Your task to perform on an android device: turn off airplane mode Image 0: 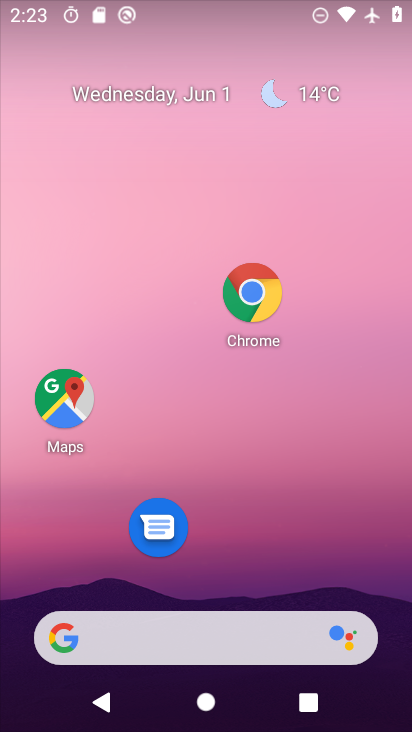
Step 0: drag from (255, 535) to (255, 177)
Your task to perform on an android device: turn off airplane mode Image 1: 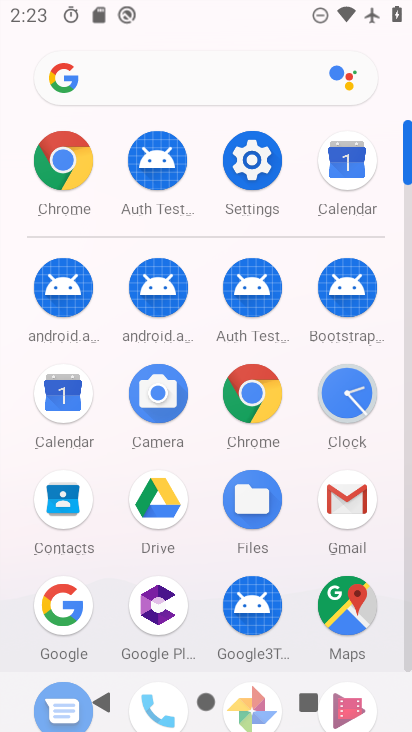
Step 1: click (250, 168)
Your task to perform on an android device: turn off airplane mode Image 2: 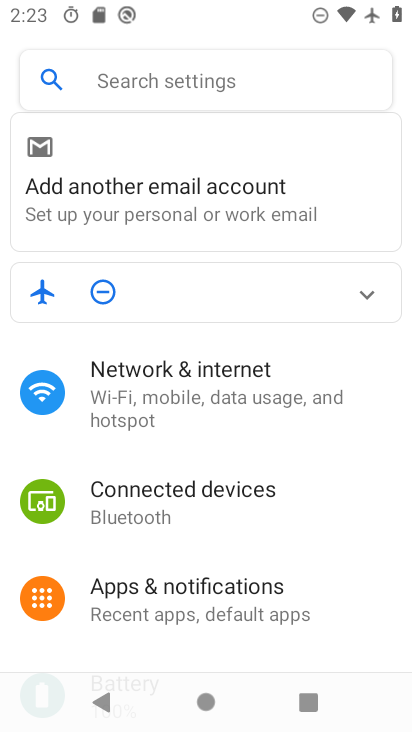
Step 2: click (156, 383)
Your task to perform on an android device: turn off airplane mode Image 3: 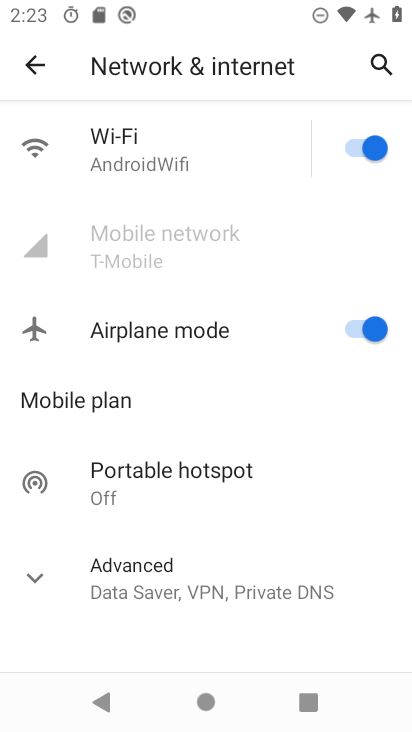
Step 3: click (333, 333)
Your task to perform on an android device: turn off airplane mode Image 4: 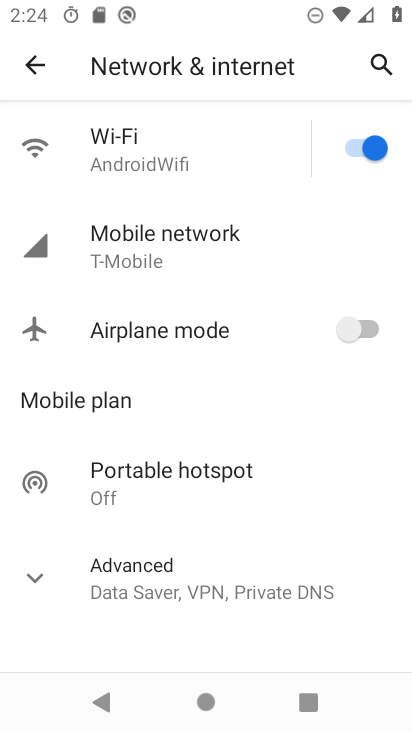
Step 4: task complete